Your task to perform on an android device: turn on javascript in the chrome app Image 0: 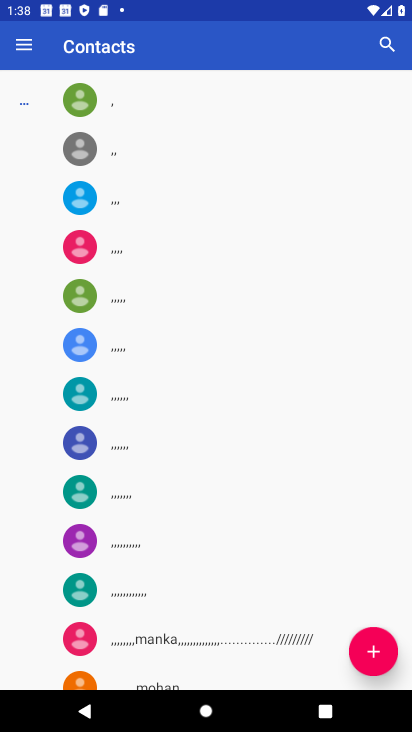
Step 0: task complete